Your task to perform on an android device: Go to Google Image 0: 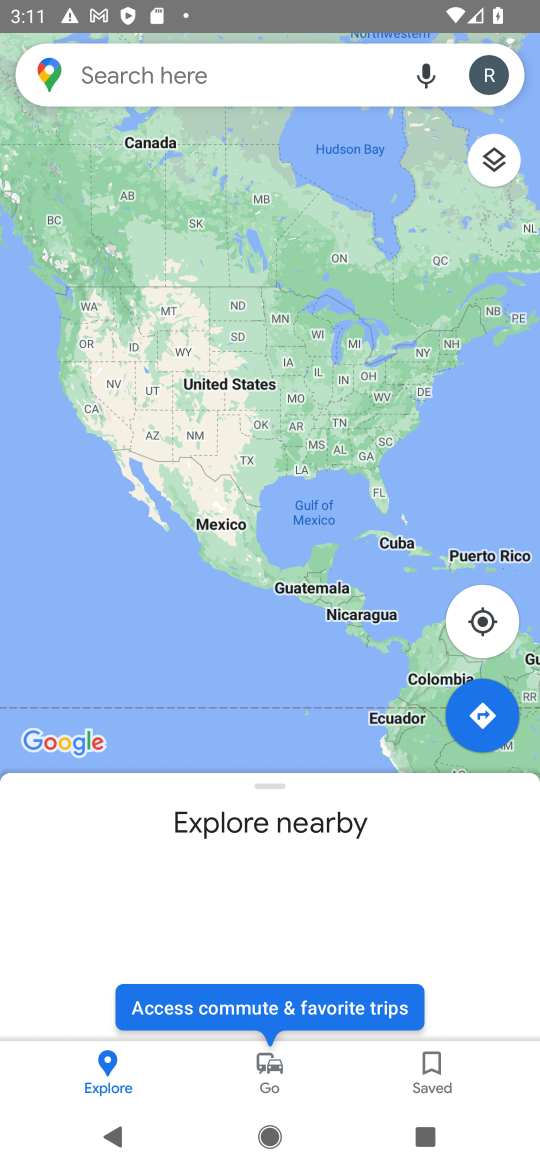
Step 0: task complete